Your task to perform on an android device: Open display settings Image 0: 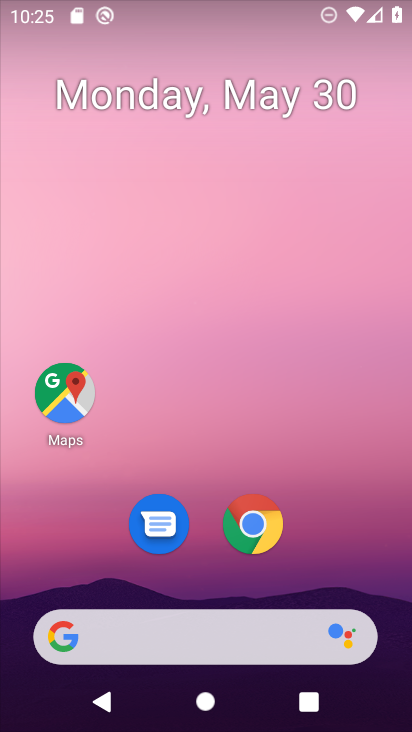
Step 0: drag from (205, 448) to (248, 13)
Your task to perform on an android device: Open display settings Image 1: 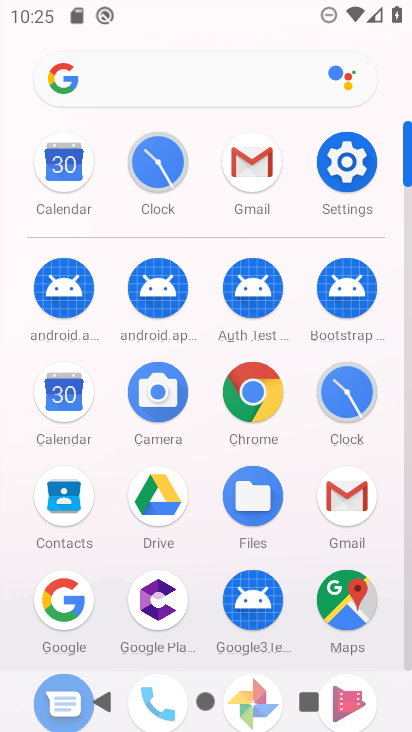
Step 1: click (339, 157)
Your task to perform on an android device: Open display settings Image 2: 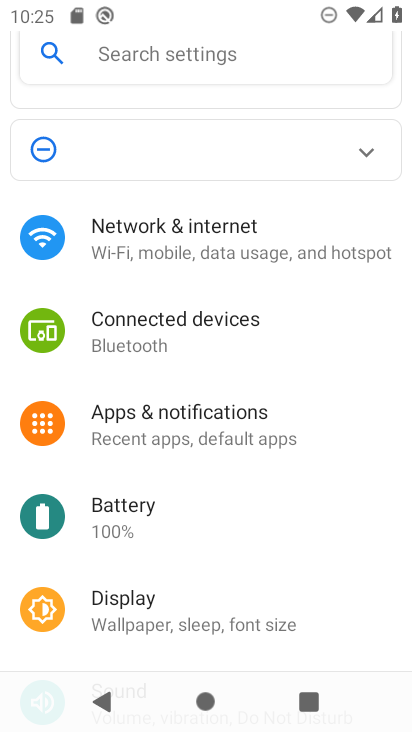
Step 2: click (186, 612)
Your task to perform on an android device: Open display settings Image 3: 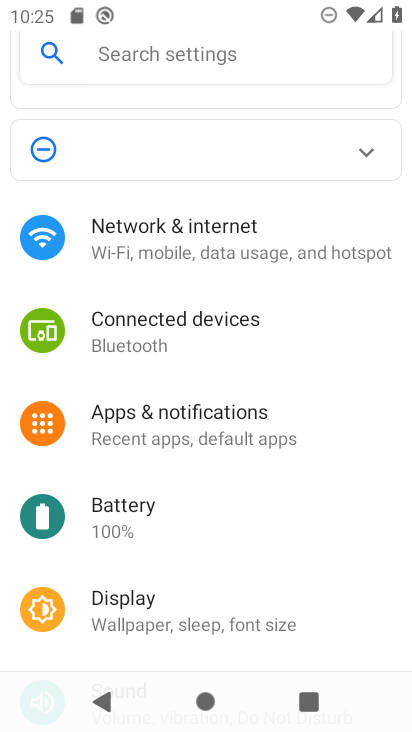
Step 3: click (231, 609)
Your task to perform on an android device: Open display settings Image 4: 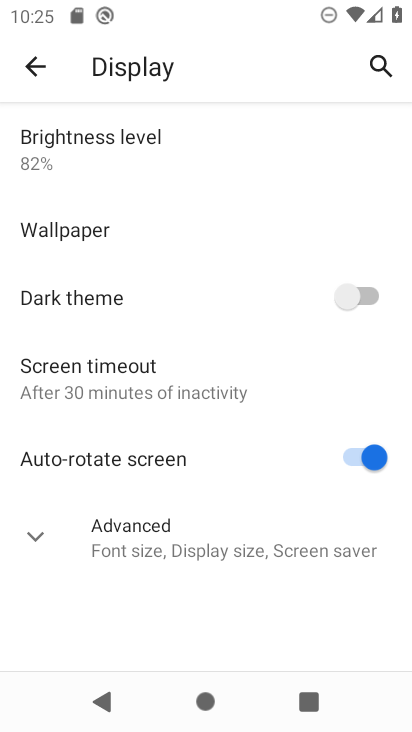
Step 4: task complete